Your task to perform on an android device: open a bookmark in the chrome app Image 0: 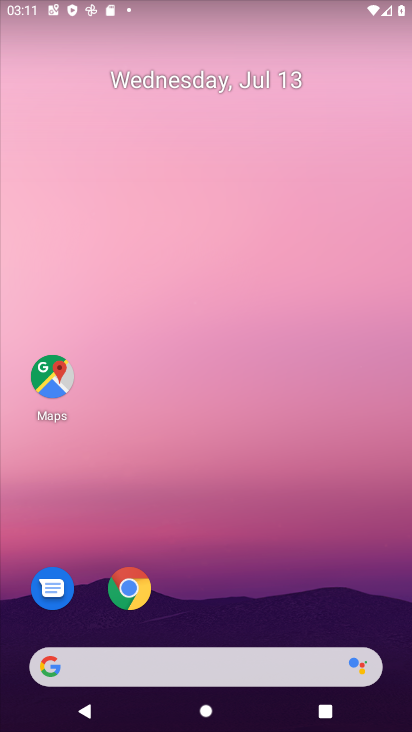
Step 0: drag from (404, 689) to (348, 285)
Your task to perform on an android device: open a bookmark in the chrome app Image 1: 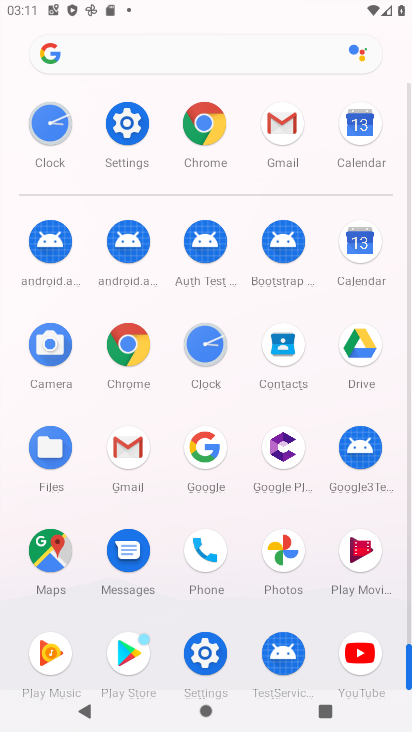
Step 1: click (205, 121)
Your task to perform on an android device: open a bookmark in the chrome app Image 2: 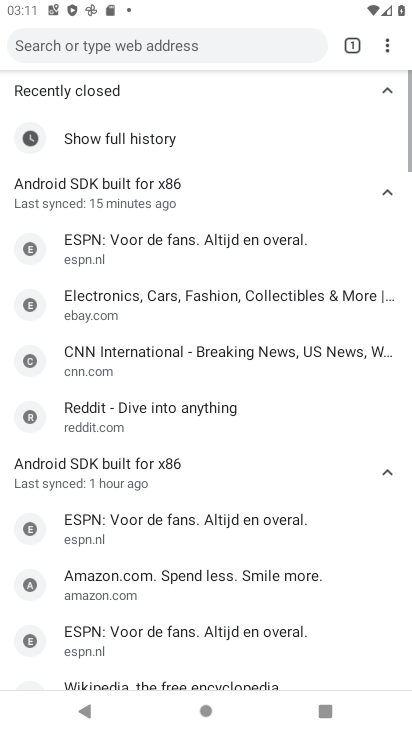
Step 2: click (386, 45)
Your task to perform on an android device: open a bookmark in the chrome app Image 3: 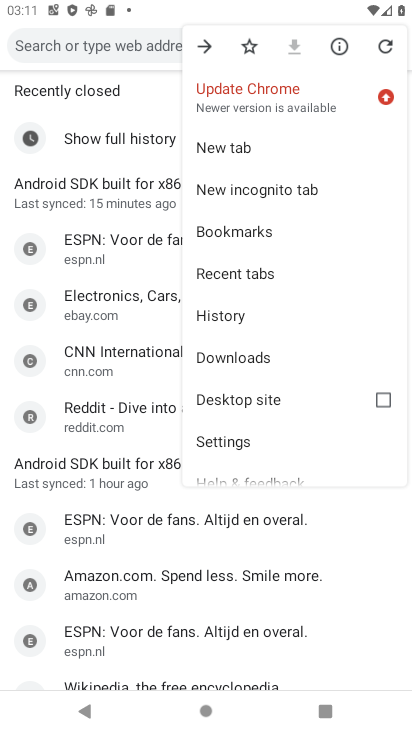
Step 3: click (230, 219)
Your task to perform on an android device: open a bookmark in the chrome app Image 4: 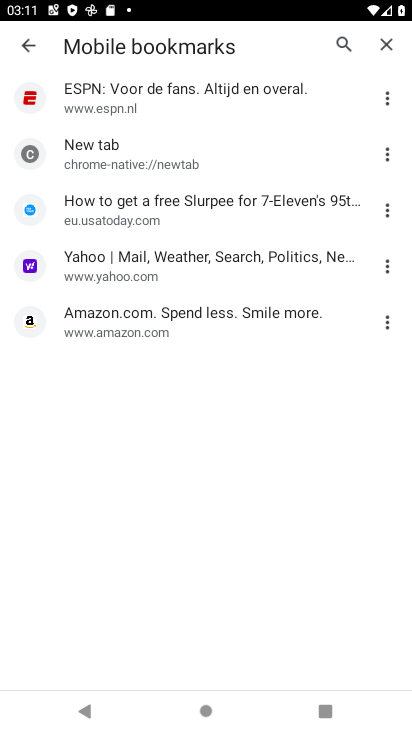
Step 4: click (88, 264)
Your task to perform on an android device: open a bookmark in the chrome app Image 5: 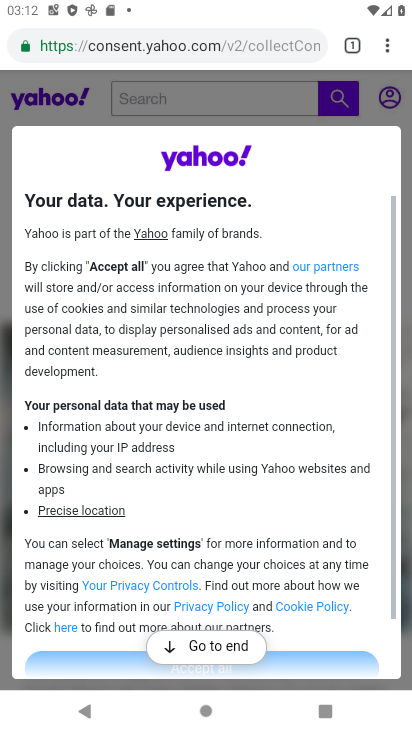
Step 5: task complete